Your task to perform on an android device: Go to Yahoo.com Image 0: 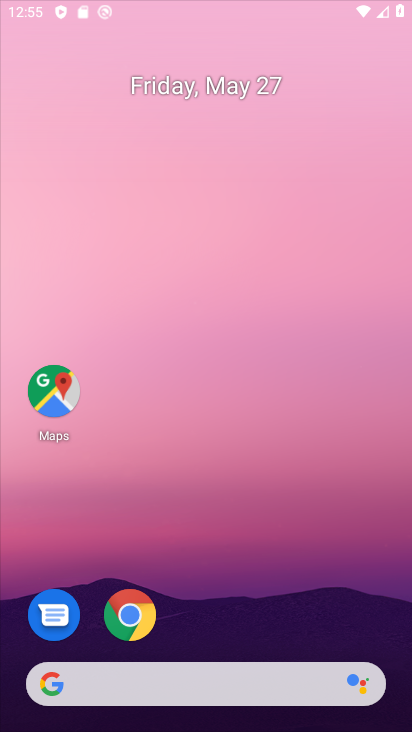
Step 0: press home button
Your task to perform on an android device: Go to Yahoo.com Image 1: 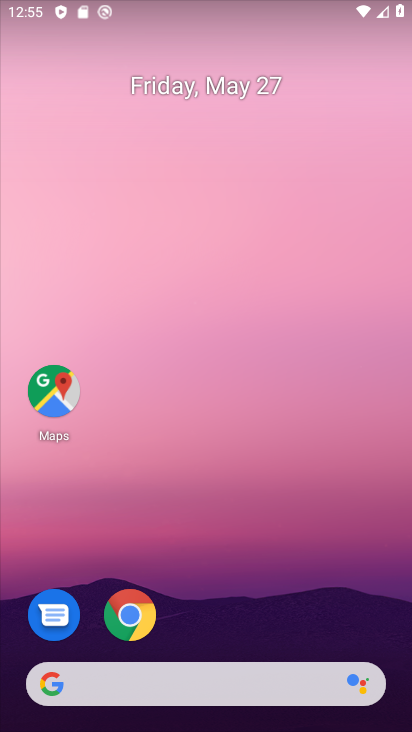
Step 1: click (41, 680)
Your task to perform on an android device: Go to Yahoo.com Image 2: 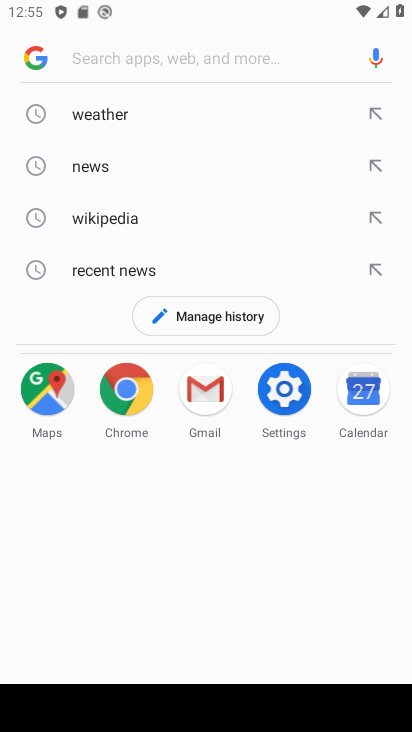
Step 2: type " Yahoo.com"
Your task to perform on an android device: Go to Yahoo.com Image 3: 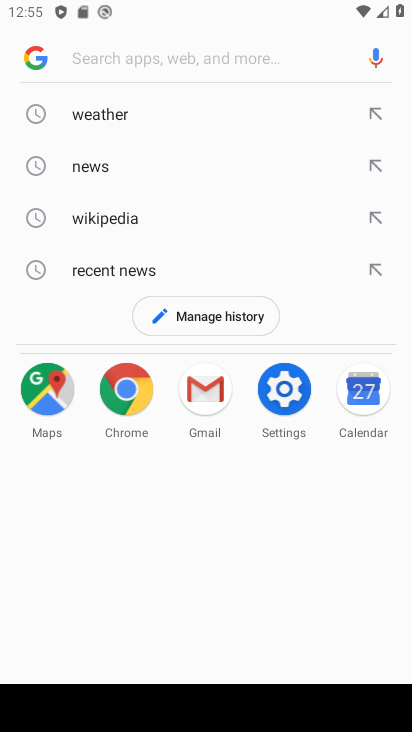
Step 3: click (165, 58)
Your task to perform on an android device: Go to Yahoo.com Image 4: 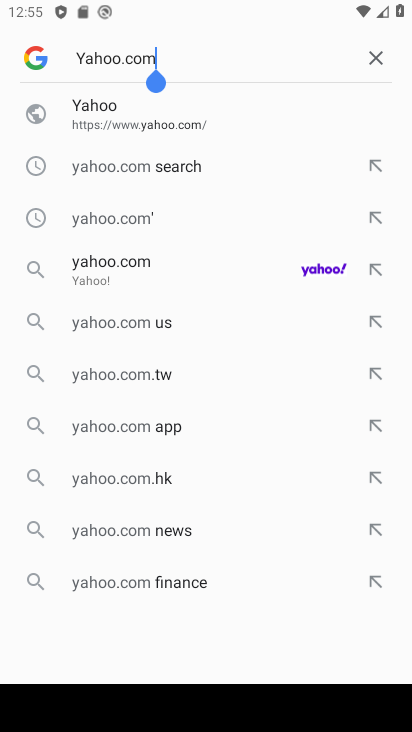
Step 4: click (94, 118)
Your task to perform on an android device: Go to Yahoo.com Image 5: 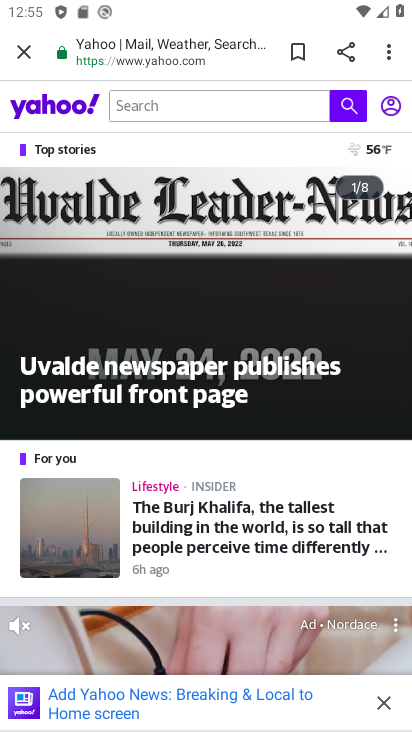
Step 5: task complete